Your task to perform on an android device: turn on bluetooth scan Image 0: 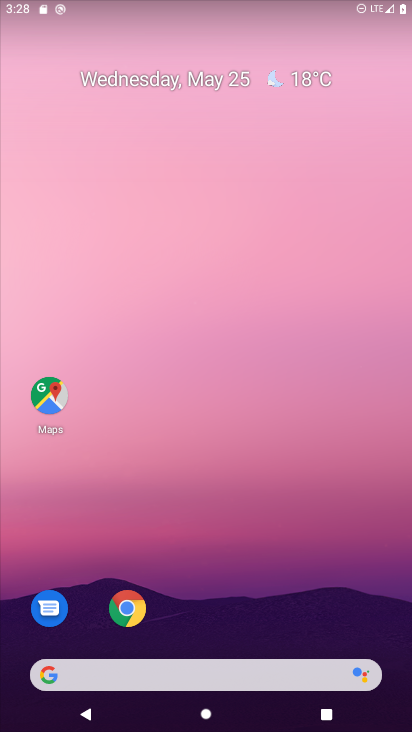
Step 0: drag from (368, 611) to (303, 139)
Your task to perform on an android device: turn on bluetooth scan Image 1: 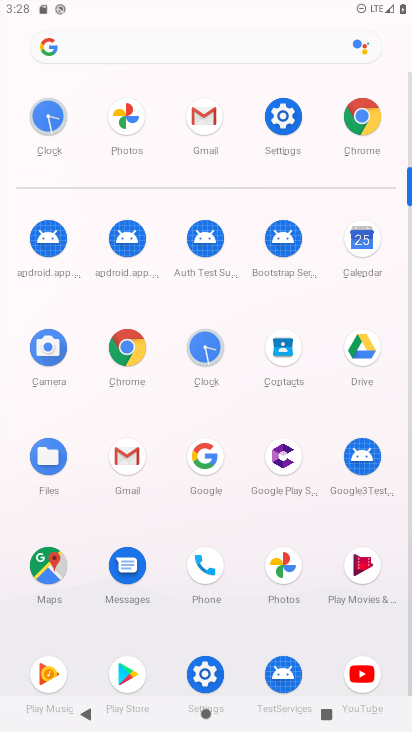
Step 1: click (202, 676)
Your task to perform on an android device: turn on bluetooth scan Image 2: 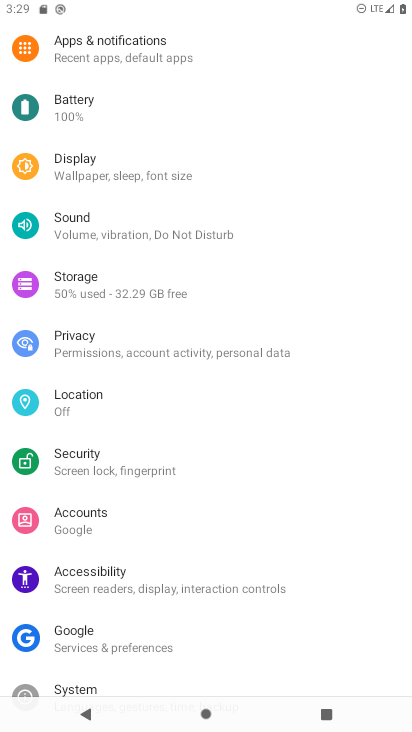
Step 2: click (78, 397)
Your task to perform on an android device: turn on bluetooth scan Image 3: 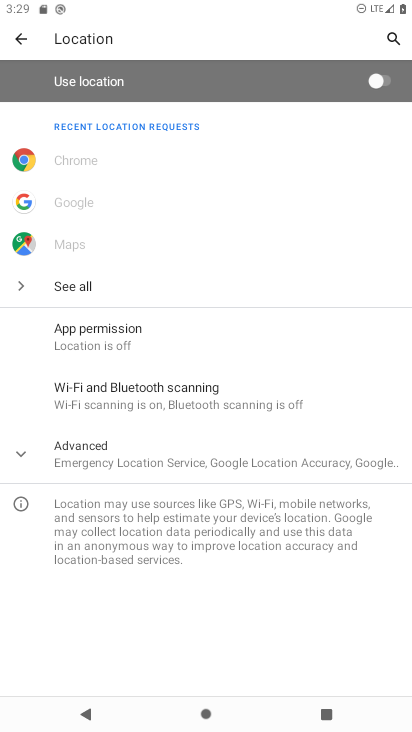
Step 3: click (142, 396)
Your task to perform on an android device: turn on bluetooth scan Image 4: 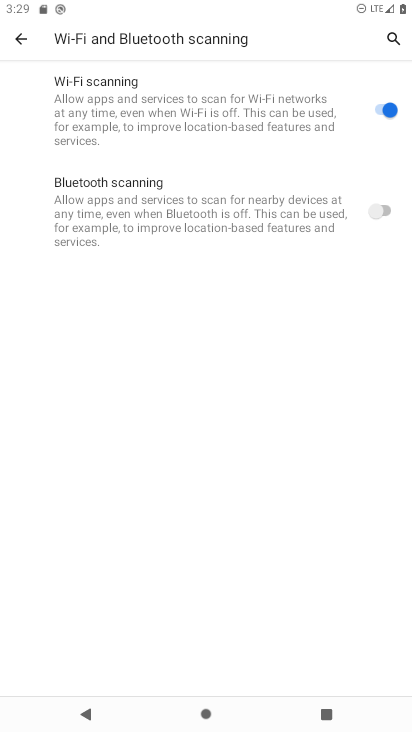
Step 4: click (385, 209)
Your task to perform on an android device: turn on bluetooth scan Image 5: 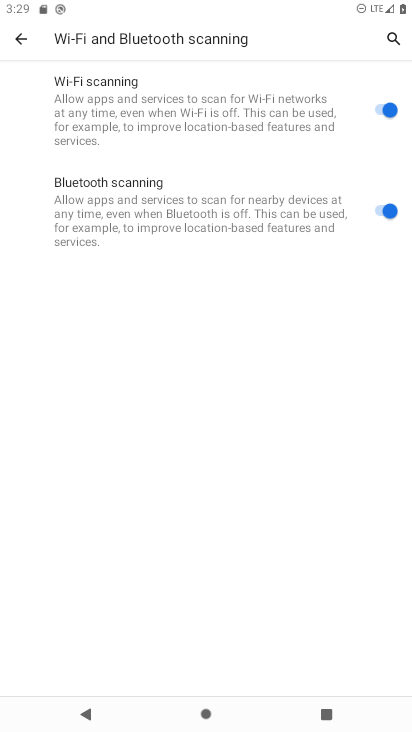
Step 5: task complete